Your task to perform on an android device: open wifi settings Image 0: 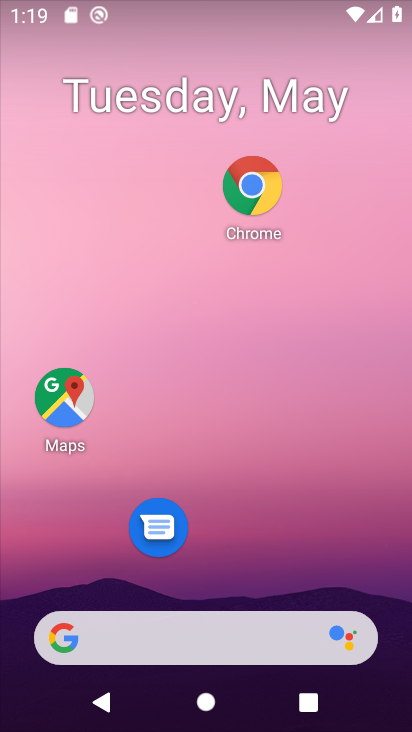
Step 0: drag from (249, 503) to (257, 42)
Your task to perform on an android device: open wifi settings Image 1: 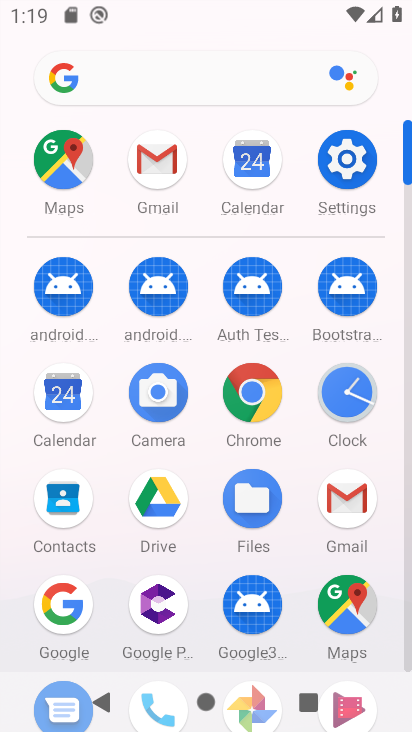
Step 1: click (346, 159)
Your task to perform on an android device: open wifi settings Image 2: 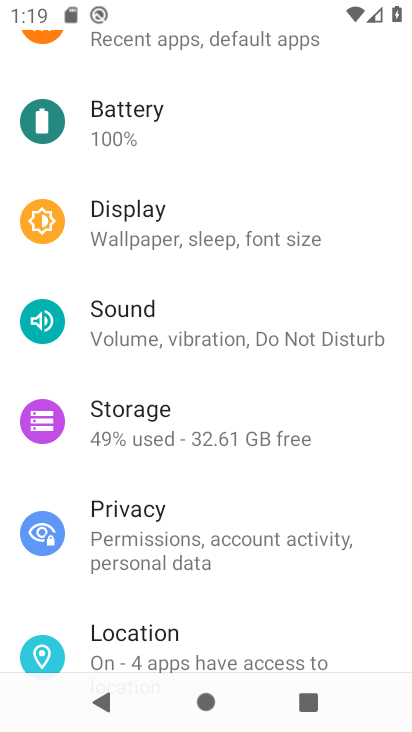
Step 2: drag from (219, 195) to (255, 724)
Your task to perform on an android device: open wifi settings Image 3: 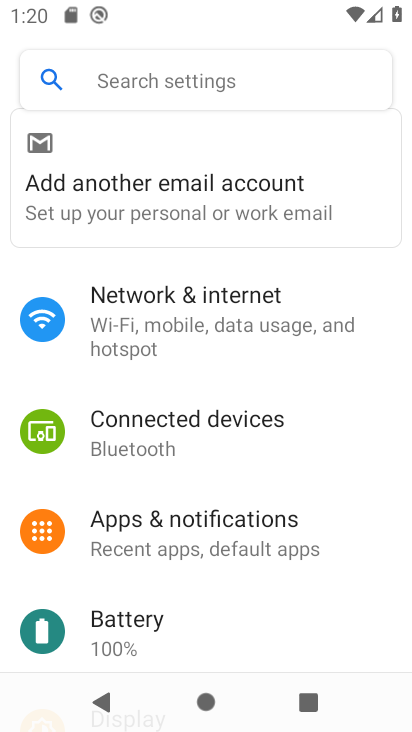
Step 3: click (174, 299)
Your task to perform on an android device: open wifi settings Image 4: 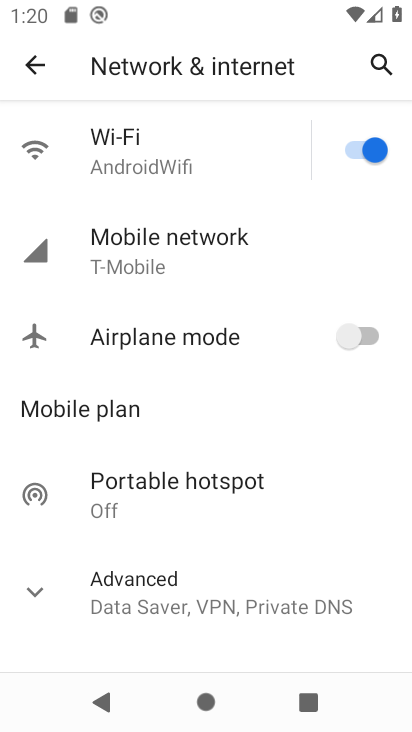
Step 4: click (173, 143)
Your task to perform on an android device: open wifi settings Image 5: 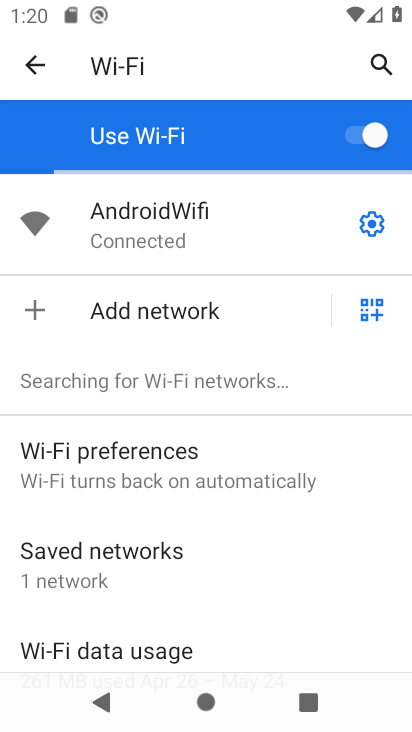
Step 5: task complete